Your task to perform on an android device: toggle data saver in the chrome app Image 0: 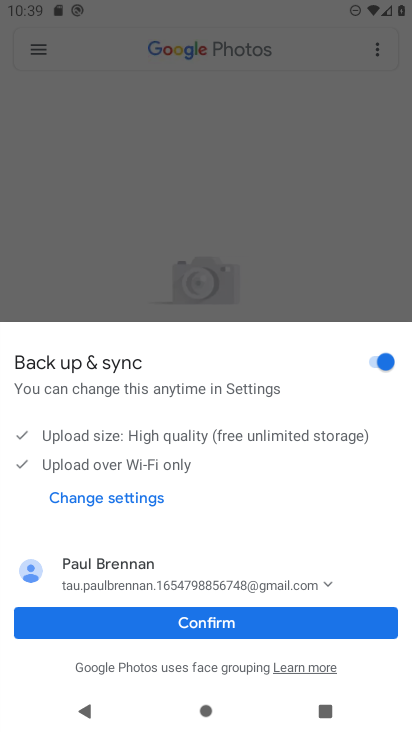
Step 0: press home button
Your task to perform on an android device: toggle data saver in the chrome app Image 1: 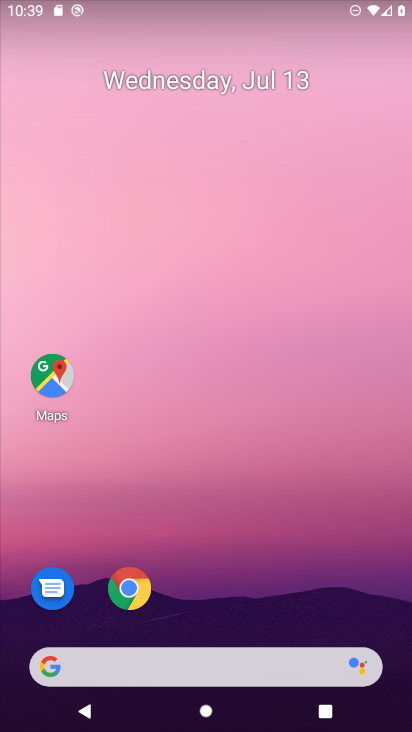
Step 1: drag from (249, 637) to (249, 25)
Your task to perform on an android device: toggle data saver in the chrome app Image 2: 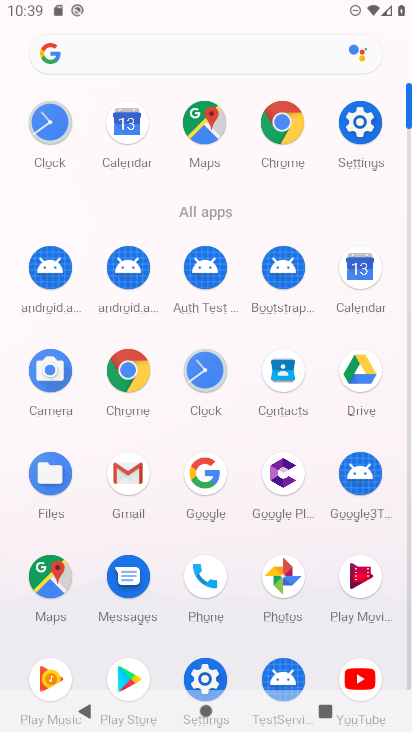
Step 2: click (122, 370)
Your task to perform on an android device: toggle data saver in the chrome app Image 3: 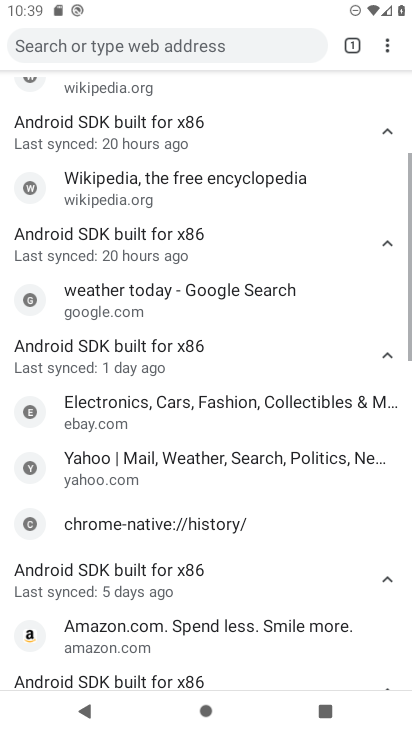
Step 3: click (387, 46)
Your task to perform on an android device: toggle data saver in the chrome app Image 4: 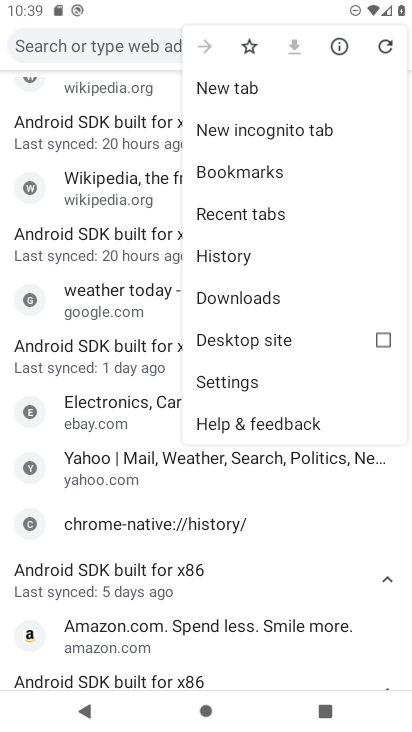
Step 4: click (245, 383)
Your task to perform on an android device: toggle data saver in the chrome app Image 5: 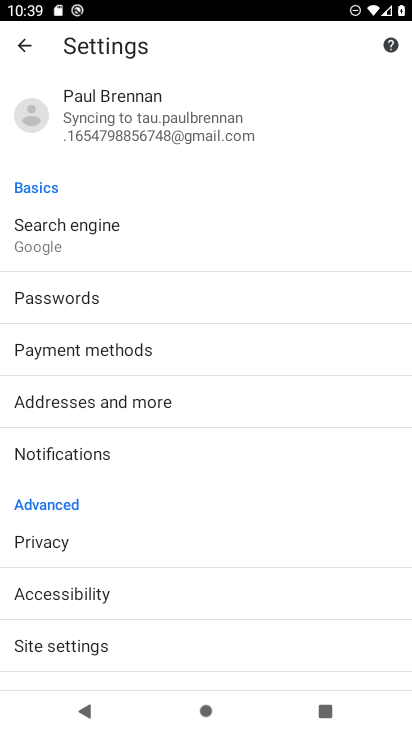
Step 5: drag from (160, 542) to (155, 324)
Your task to perform on an android device: toggle data saver in the chrome app Image 6: 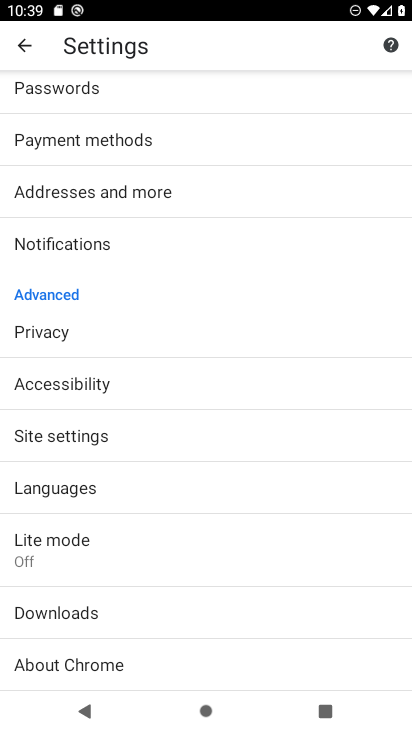
Step 6: click (92, 551)
Your task to perform on an android device: toggle data saver in the chrome app Image 7: 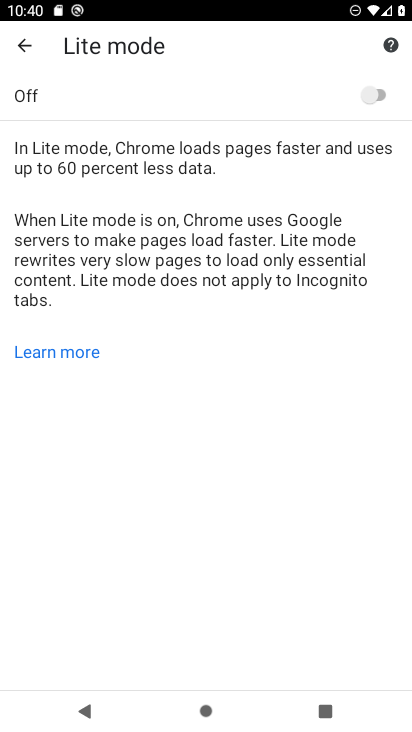
Step 7: click (368, 90)
Your task to perform on an android device: toggle data saver in the chrome app Image 8: 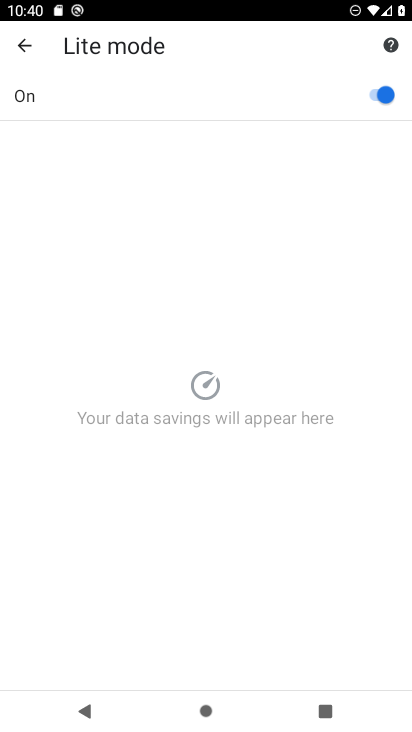
Step 8: task complete